Your task to perform on an android device: How do I get to the nearest Walmart? Image 0: 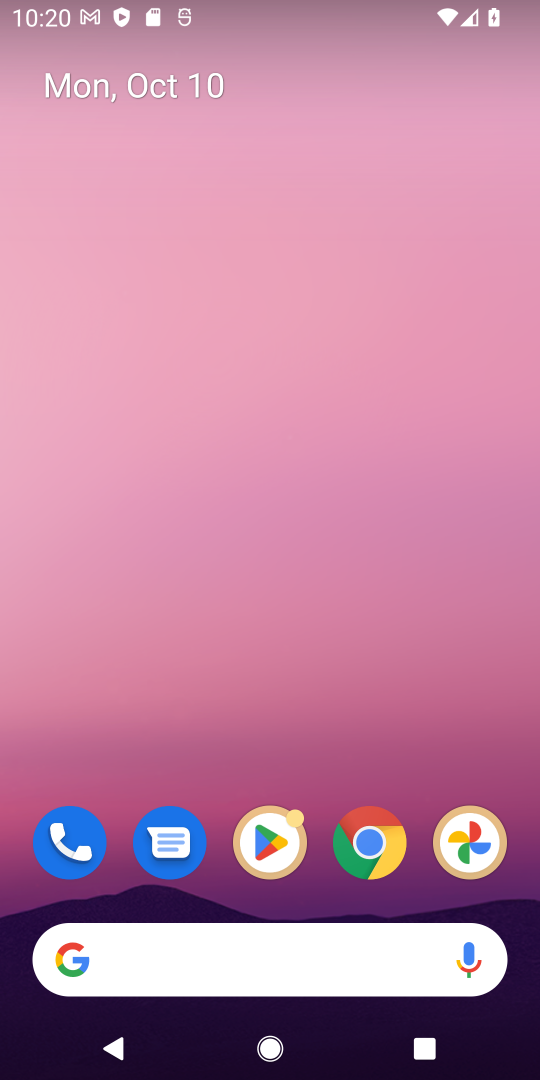
Step 0: click (370, 843)
Your task to perform on an android device: How do I get to the nearest Walmart? Image 1: 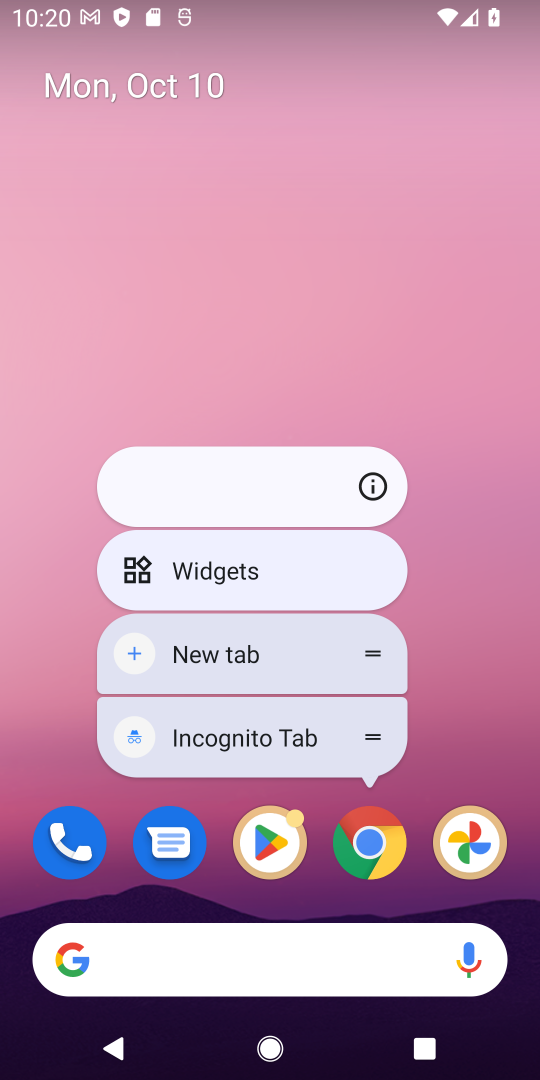
Step 1: click (370, 843)
Your task to perform on an android device: How do I get to the nearest Walmart? Image 2: 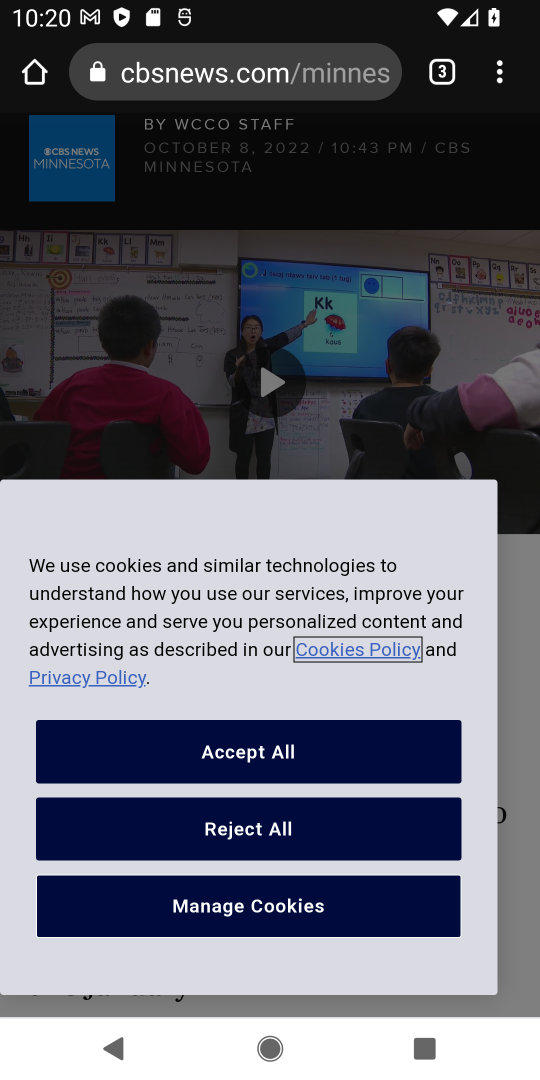
Step 2: click (285, 92)
Your task to perform on an android device: How do I get to the nearest Walmart? Image 3: 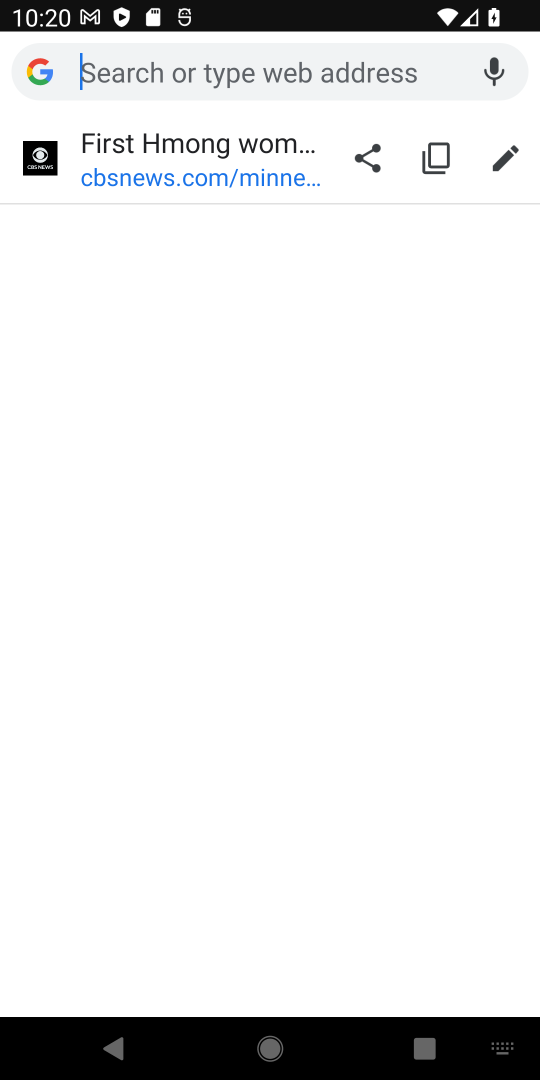
Step 3: type "walmart"
Your task to perform on an android device: How do I get to the nearest Walmart? Image 4: 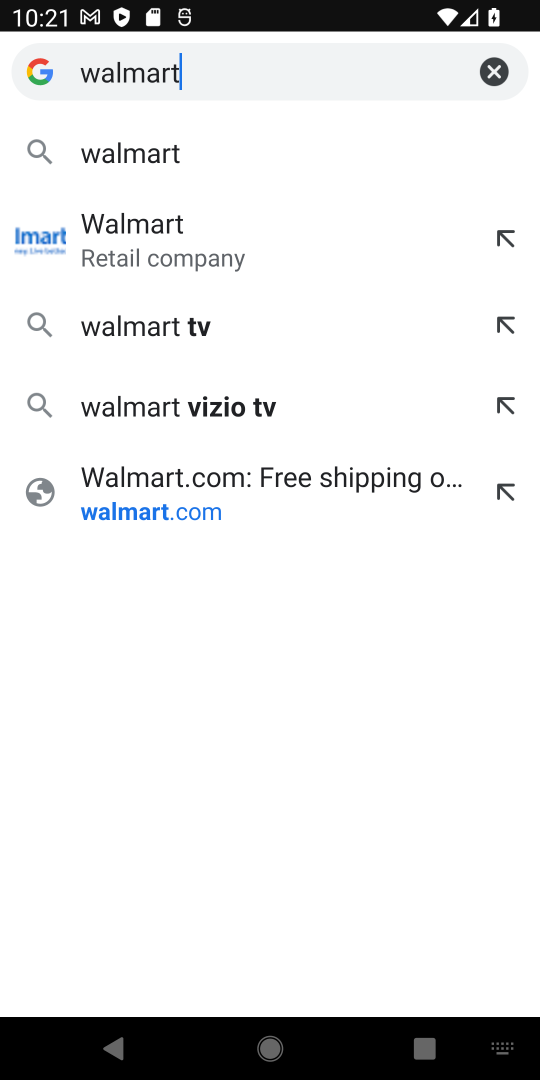
Step 4: click (147, 156)
Your task to perform on an android device: How do I get to the nearest Walmart? Image 5: 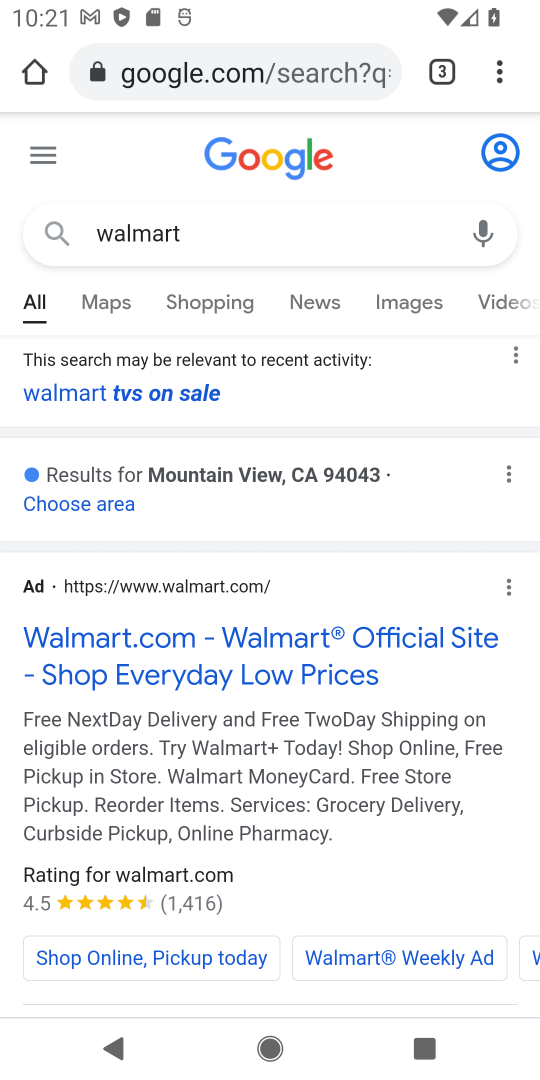
Step 5: click (95, 233)
Your task to perform on an android device: How do I get to the nearest Walmart? Image 6: 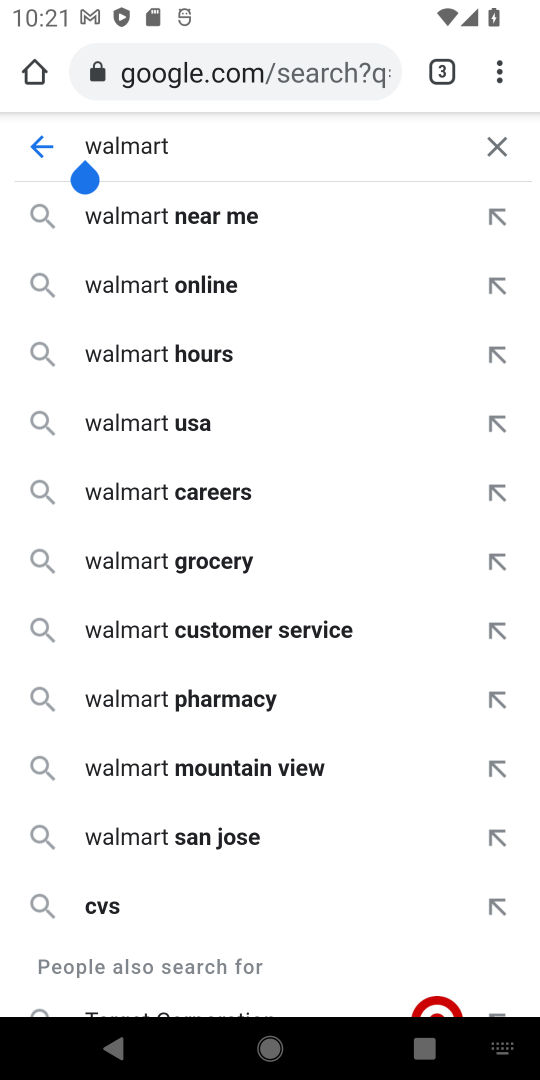
Step 6: type "nearest "
Your task to perform on an android device: How do I get to the nearest Walmart? Image 7: 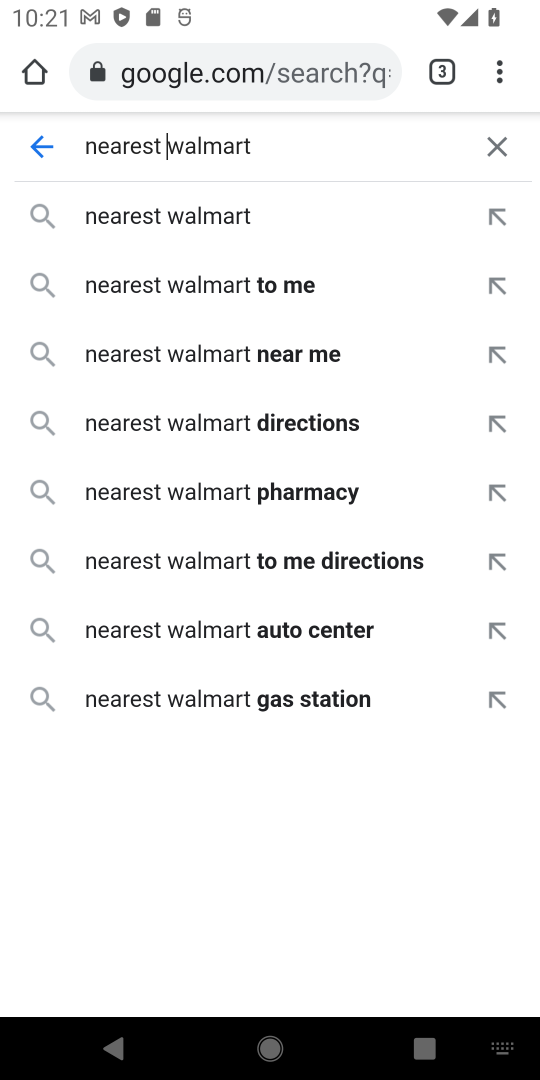
Step 7: click (233, 295)
Your task to perform on an android device: How do I get to the nearest Walmart? Image 8: 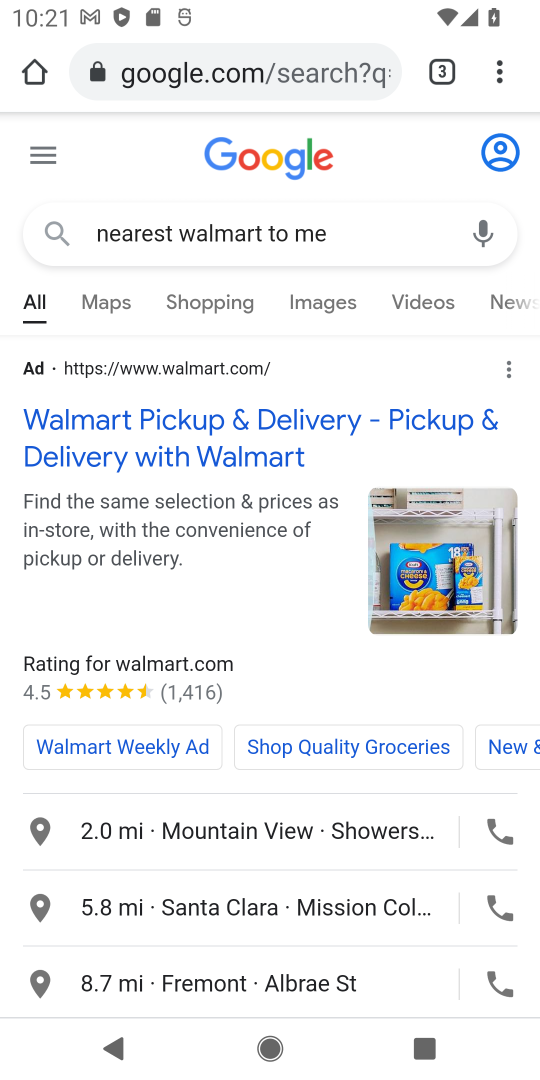
Step 8: drag from (236, 690) to (258, 288)
Your task to perform on an android device: How do I get to the nearest Walmart? Image 9: 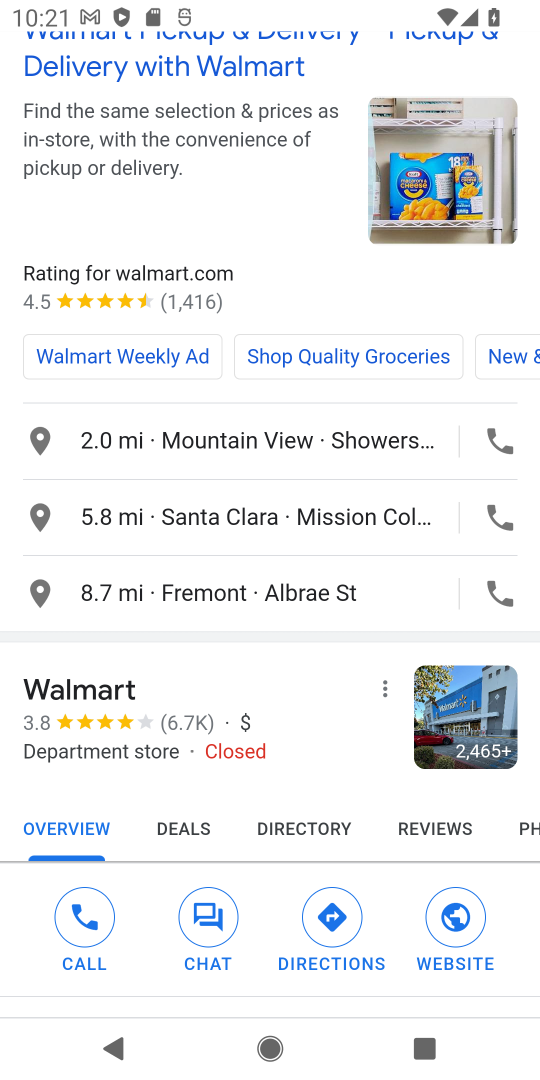
Step 9: drag from (191, 709) to (237, 258)
Your task to perform on an android device: How do I get to the nearest Walmart? Image 10: 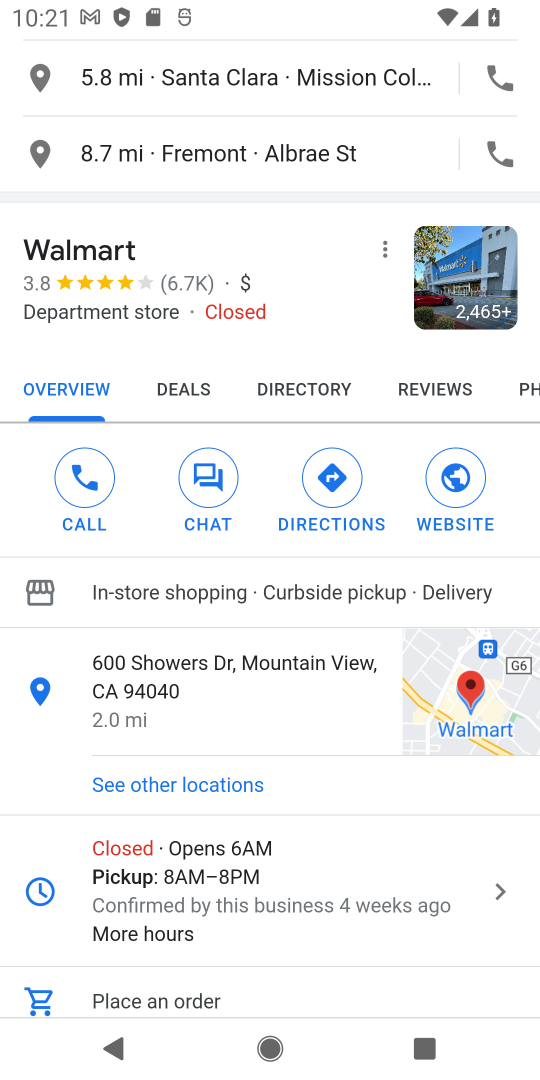
Step 10: drag from (178, 645) to (195, 422)
Your task to perform on an android device: How do I get to the nearest Walmart? Image 11: 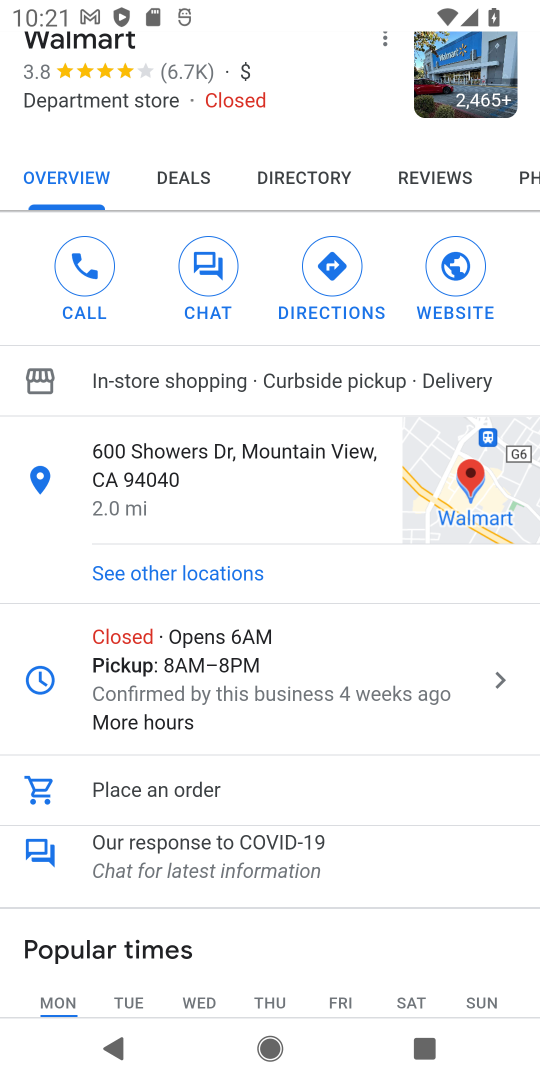
Step 11: click (60, 51)
Your task to perform on an android device: How do I get to the nearest Walmart? Image 12: 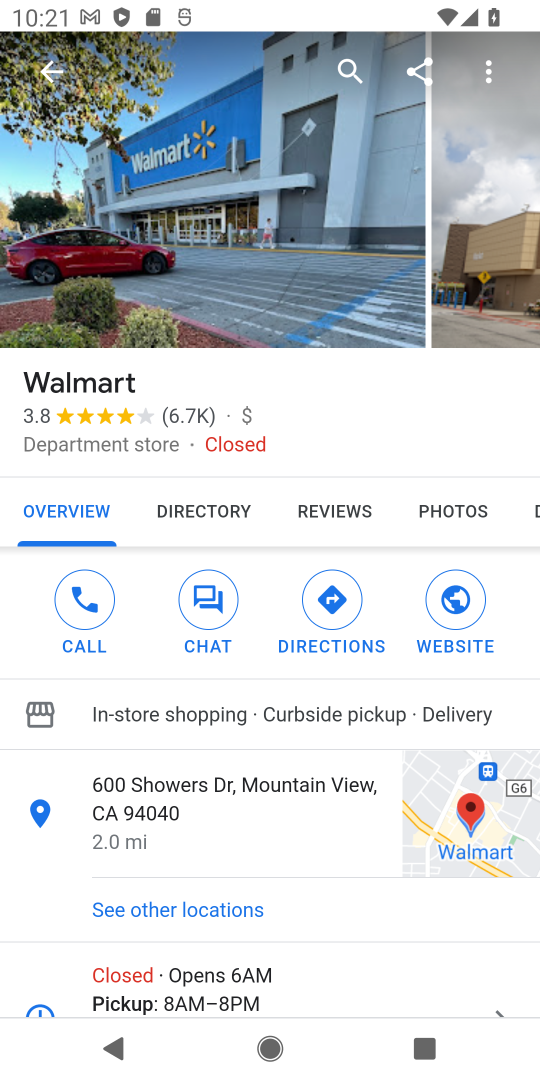
Step 12: task complete